Your task to perform on an android device: Search for seafood restaurants on Google Maps Image 0: 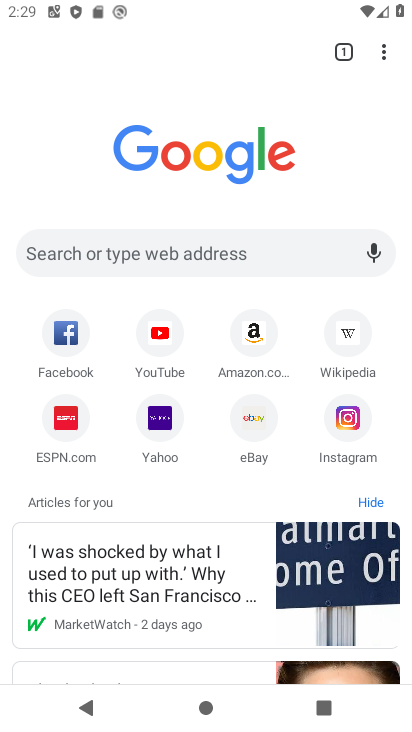
Step 0: press home button
Your task to perform on an android device: Search for seafood restaurants on Google Maps Image 1: 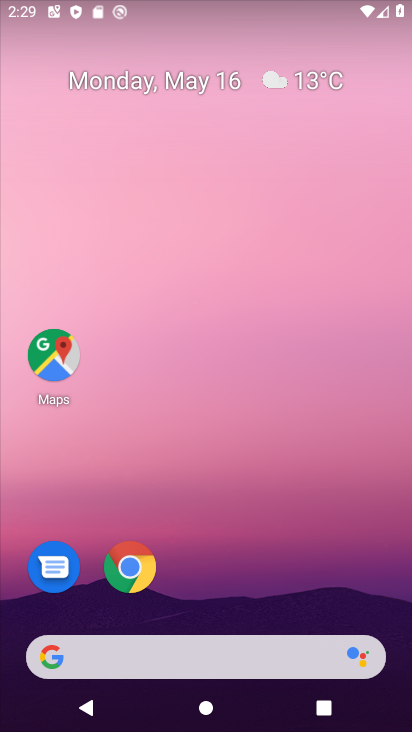
Step 1: click (44, 365)
Your task to perform on an android device: Search for seafood restaurants on Google Maps Image 2: 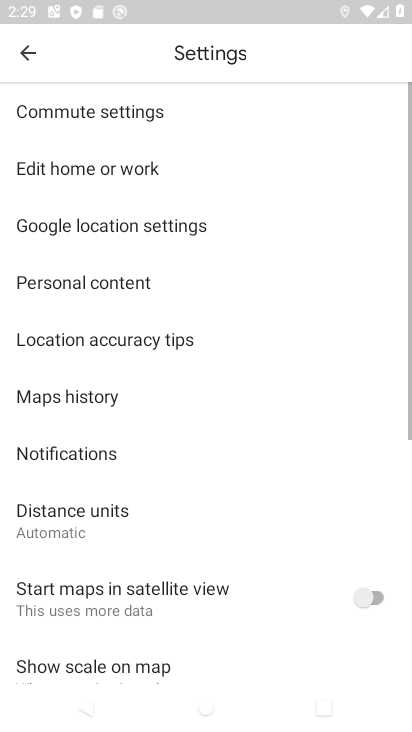
Step 2: click (33, 54)
Your task to perform on an android device: Search for seafood restaurants on Google Maps Image 3: 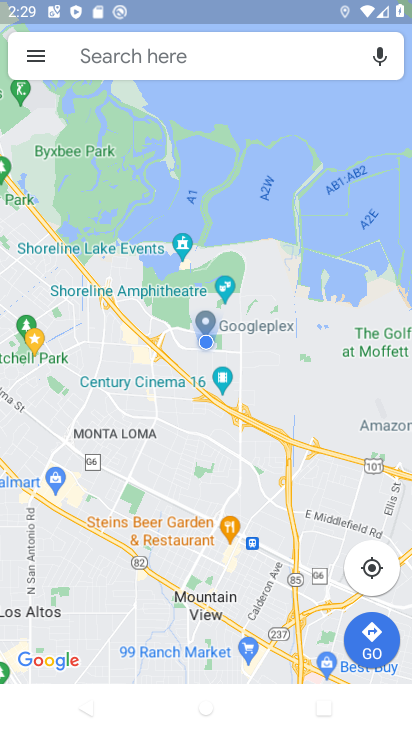
Step 3: click (137, 61)
Your task to perform on an android device: Search for seafood restaurants on Google Maps Image 4: 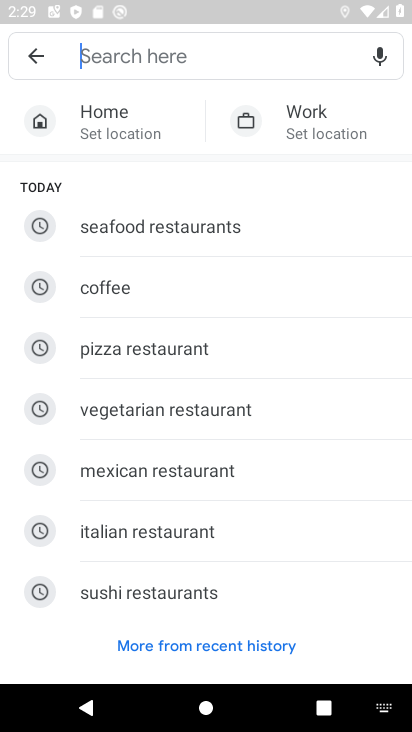
Step 4: click (216, 218)
Your task to perform on an android device: Search for seafood restaurants on Google Maps Image 5: 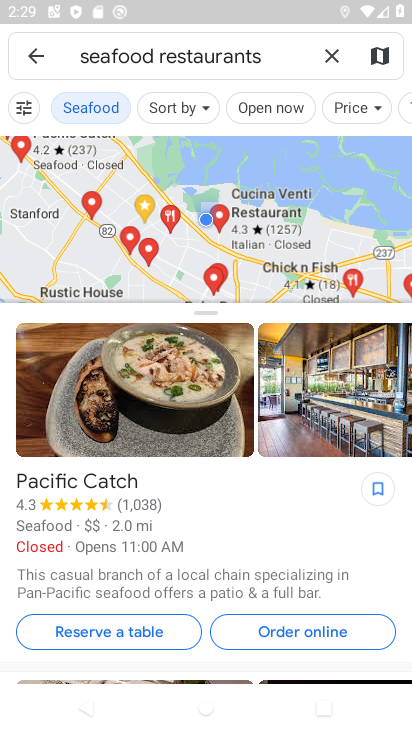
Step 5: task complete